Your task to perform on an android device: change your default location settings in chrome Image 0: 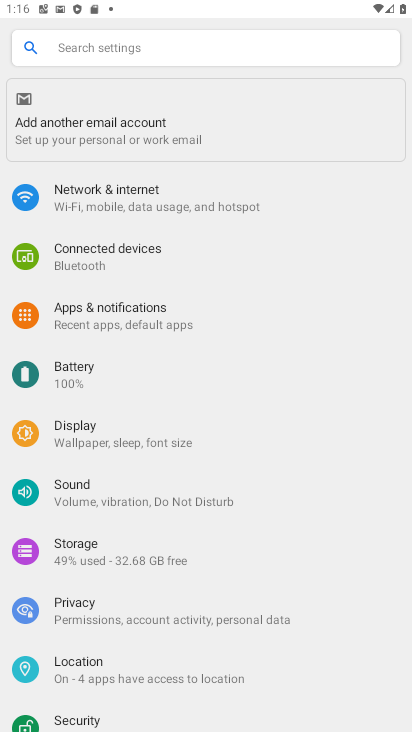
Step 0: press home button
Your task to perform on an android device: change your default location settings in chrome Image 1: 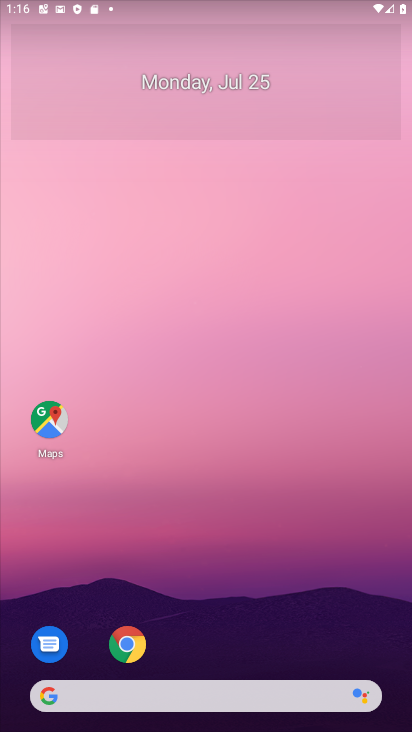
Step 1: drag from (309, 585) to (174, 50)
Your task to perform on an android device: change your default location settings in chrome Image 2: 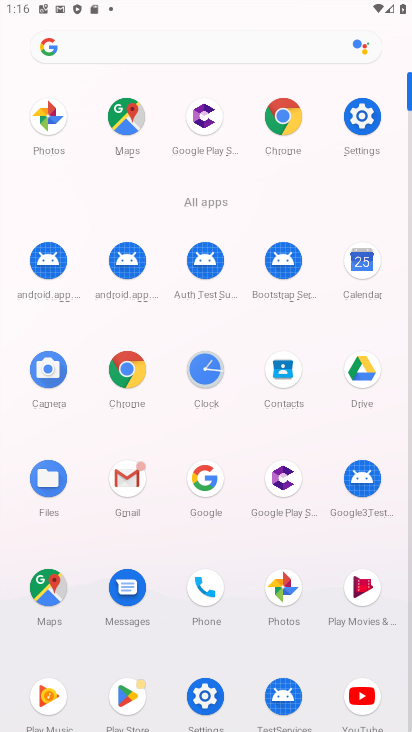
Step 2: click (279, 117)
Your task to perform on an android device: change your default location settings in chrome Image 3: 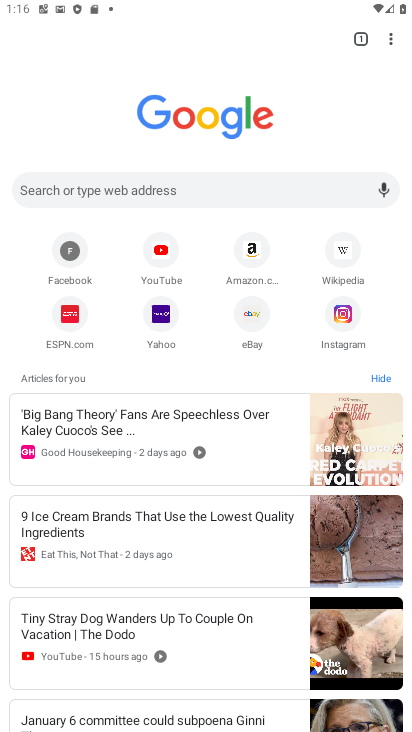
Step 3: drag from (393, 36) to (267, 331)
Your task to perform on an android device: change your default location settings in chrome Image 4: 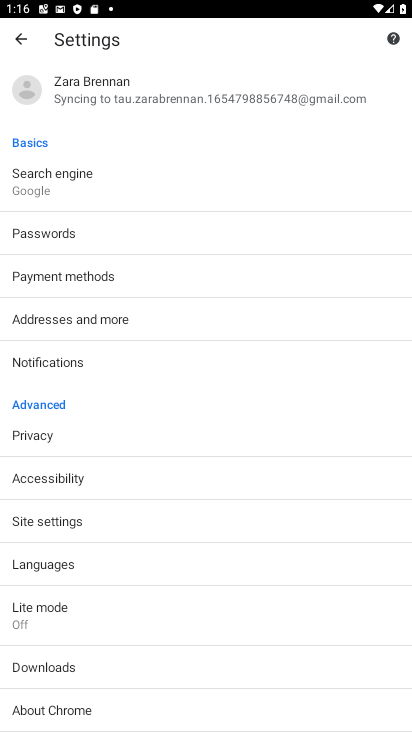
Step 4: click (58, 530)
Your task to perform on an android device: change your default location settings in chrome Image 5: 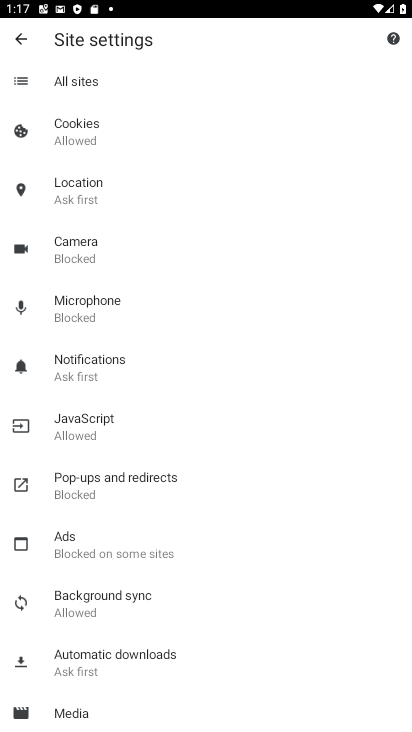
Step 5: click (81, 195)
Your task to perform on an android device: change your default location settings in chrome Image 6: 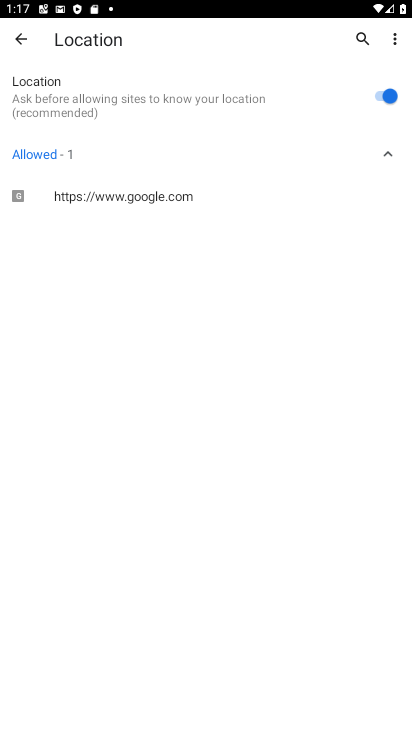
Step 6: click (373, 92)
Your task to perform on an android device: change your default location settings in chrome Image 7: 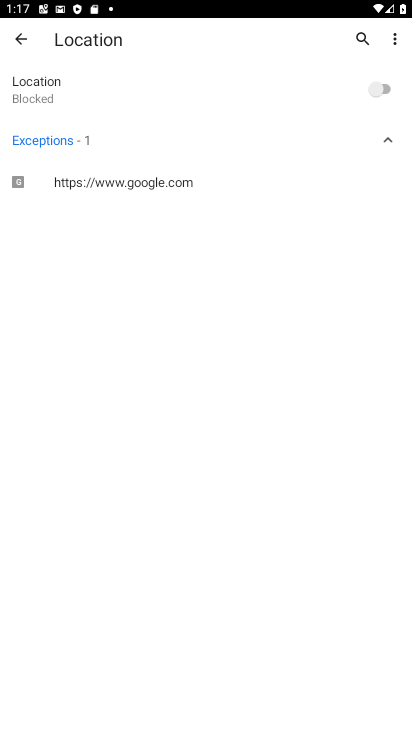
Step 7: task complete